Your task to perform on an android device: Open Wikipedia Image 0: 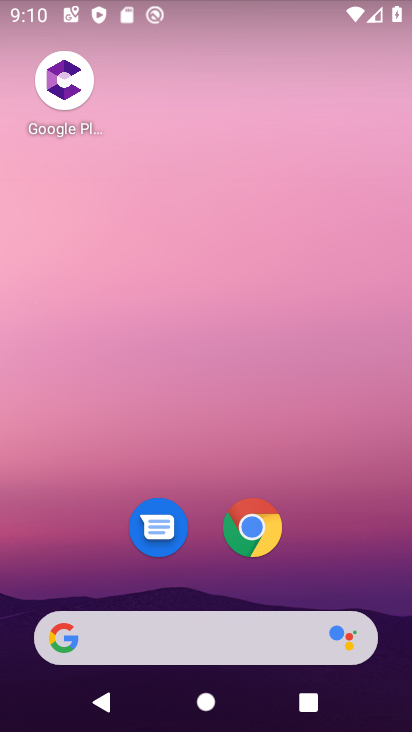
Step 0: click (253, 509)
Your task to perform on an android device: Open Wikipedia Image 1: 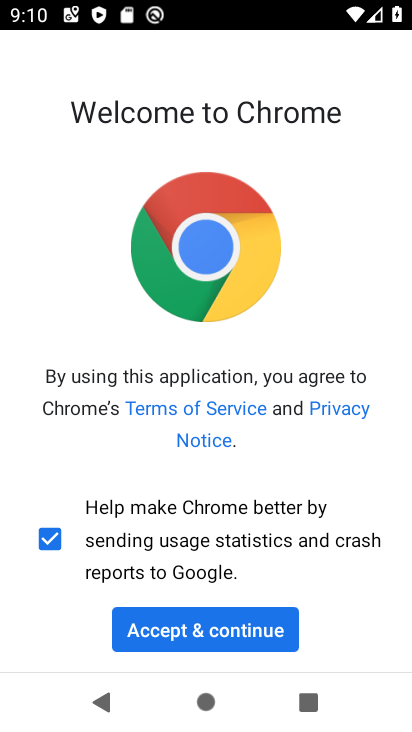
Step 1: click (250, 638)
Your task to perform on an android device: Open Wikipedia Image 2: 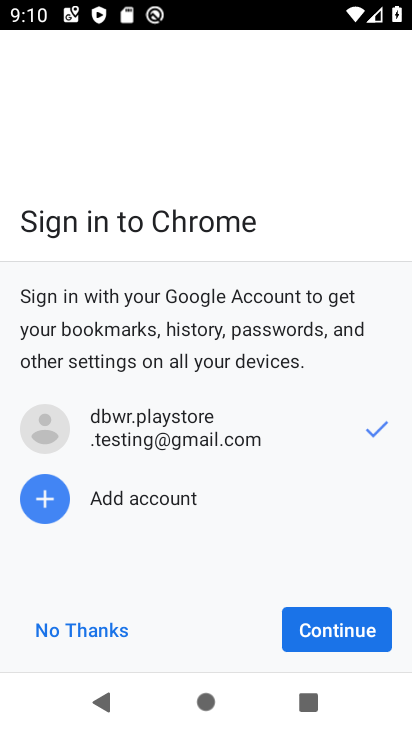
Step 2: click (305, 638)
Your task to perform on an android device: Open Wikipedia Image 3: 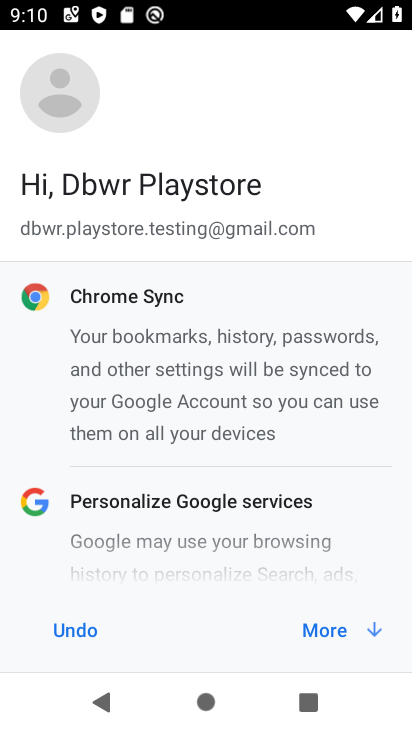
Step 3: click (305, 638)
Your task to perform on an android device: Open Wikipedia Image 4: 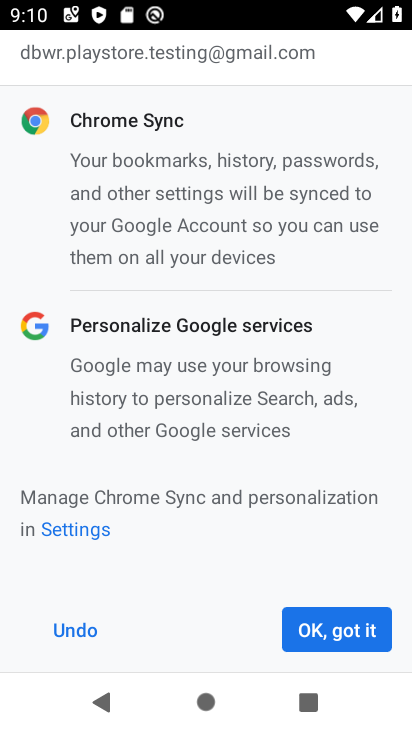
Step 4: click (305, 638)
Your task to perform on an android device: Open Wikipedia Image 5: 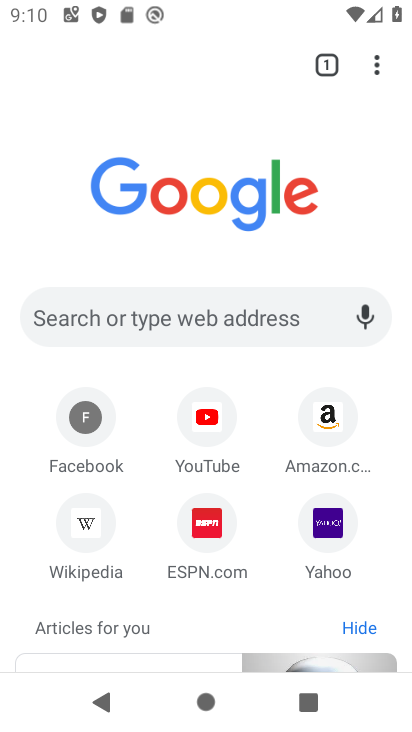
Step 5: click (94, 517)
Your task to perform on an android device: Open Wikipedia Image 6: 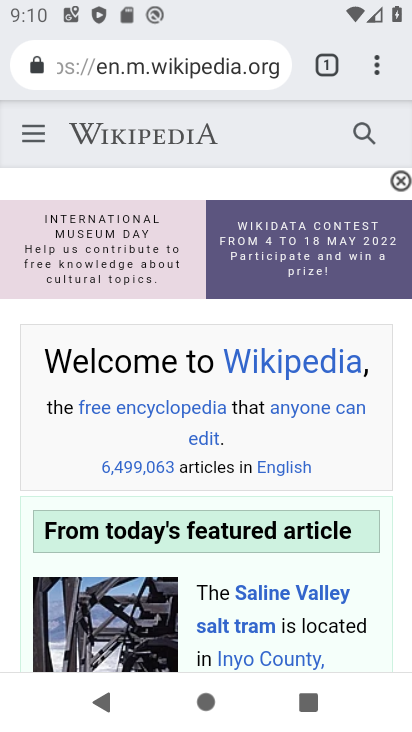
Step 6: task complete